Your task to perform on an android device: Go to display settings Image 0: 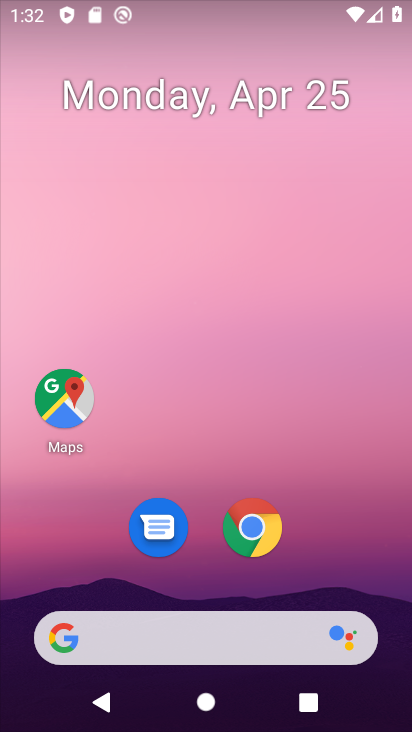
Step 0: drag from (356, 487) to (182, 35)
Your task to perform on an android device: Go to display settings Image 1: 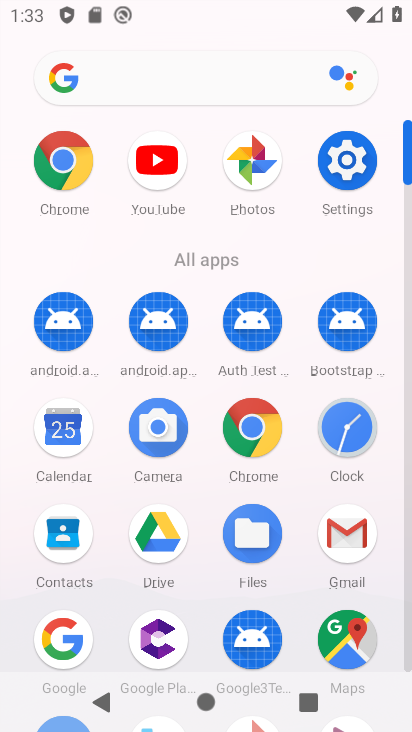
Step 1: click (333, 176)
Your task to perform on an android device: Go to display settings Image 2: 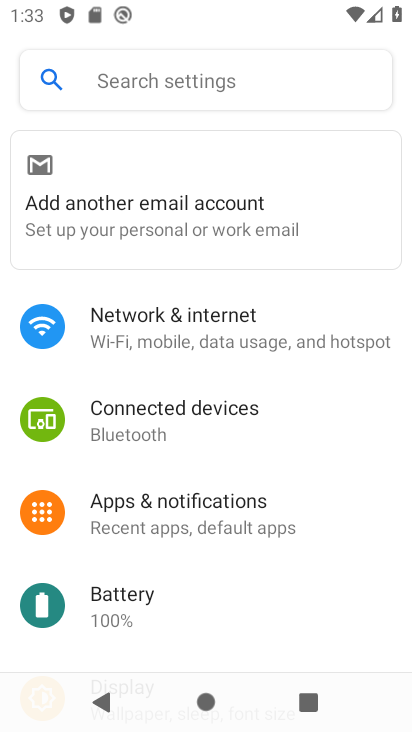
Step 2: drag from (218, 565) to (249, 215)
Your task to perform on an android device: Go to display settings Image 3: 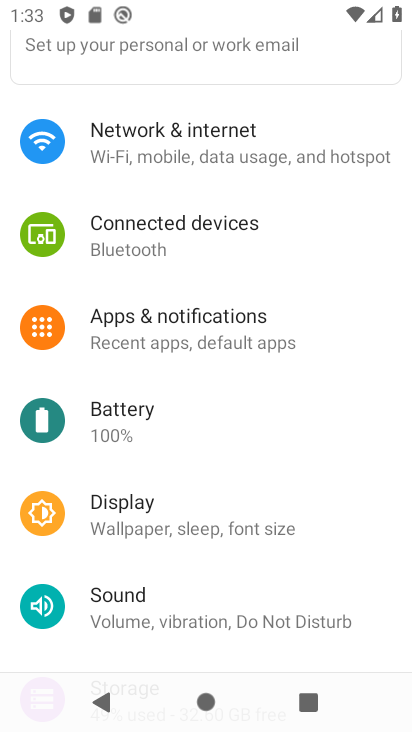
Step 3: click (130, 497)
Your task to perform on an android device: Go to display settings Image 4: 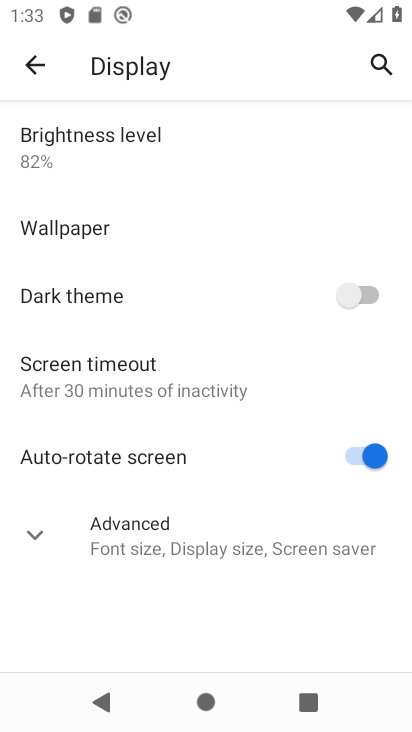
Step 4: task complete